Your task to perform on an android device: Go to display settings Image 0: 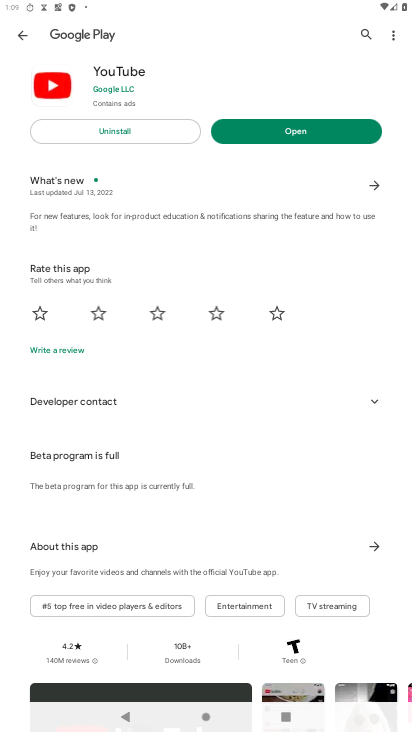
Step 0: press home button
Your task to perform on an android device: Go to display settings Image 1: 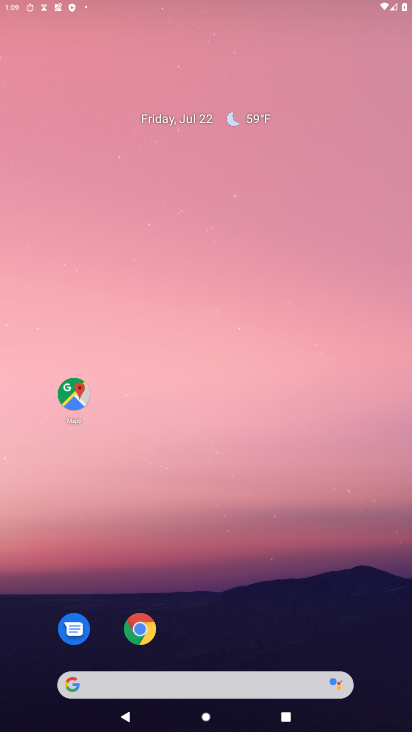
Step 1: drag from (183, 605) to (237, 87)
Your task to perform on an android device: Go to display settings Image 2: 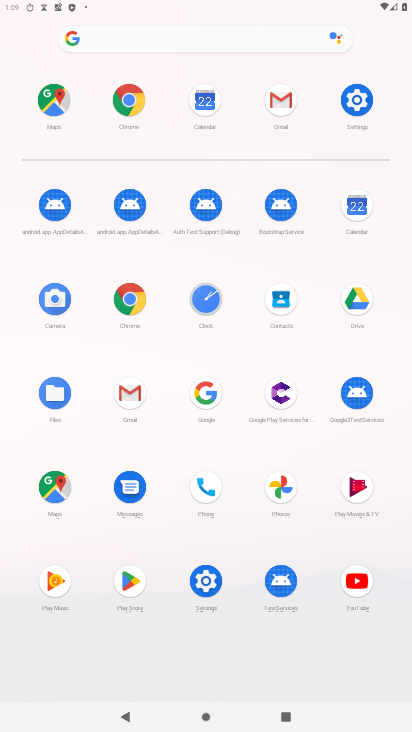
Step 2: click (346, 98)
Your task to perform on an android device: Go to display settings Image 3: 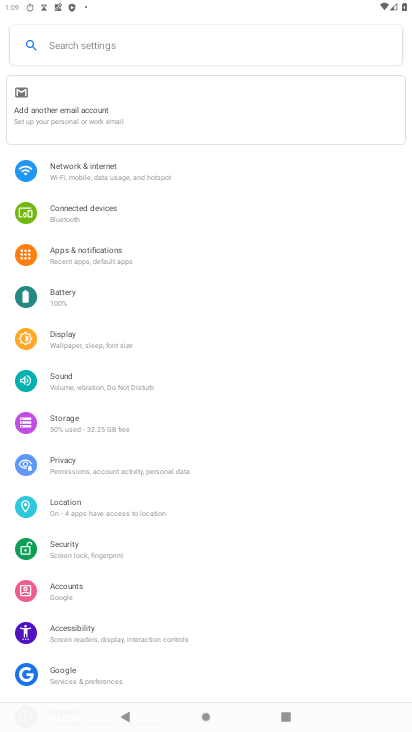
Step 3: click (80, 338)
Your task to perform on an android device: Go to display settings Image 4: 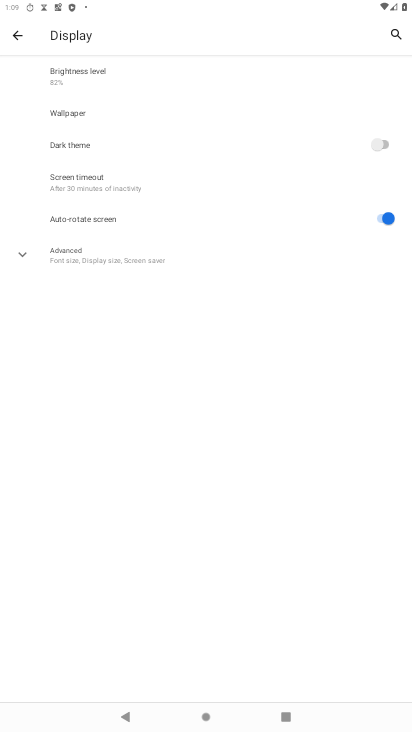
Step 4: task complete